Your task to perform on an android device: Search for pizza restaurants on Maps Image 0: 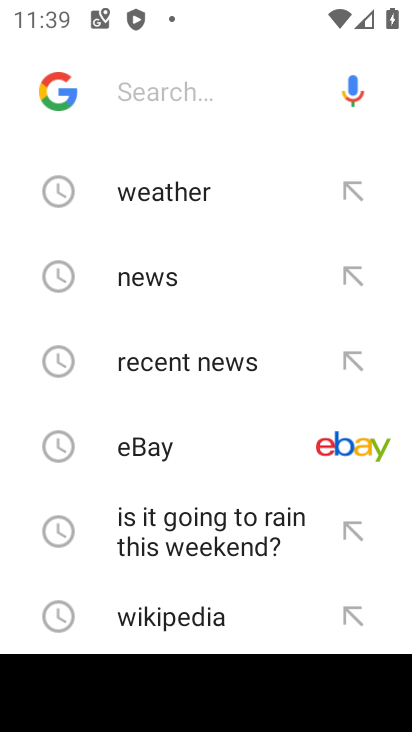
Step 0: press home button
Your task to perform on an android device: Search for pizza restaurants on Maps Image 1: 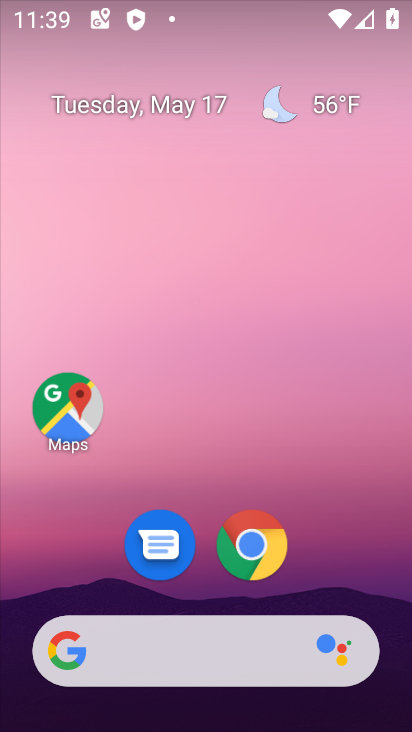
Step 1: drag from (205, 638) to (275, 185)
Your task to perform on an android device: Search for pizza restaurants on Maps Image 2: 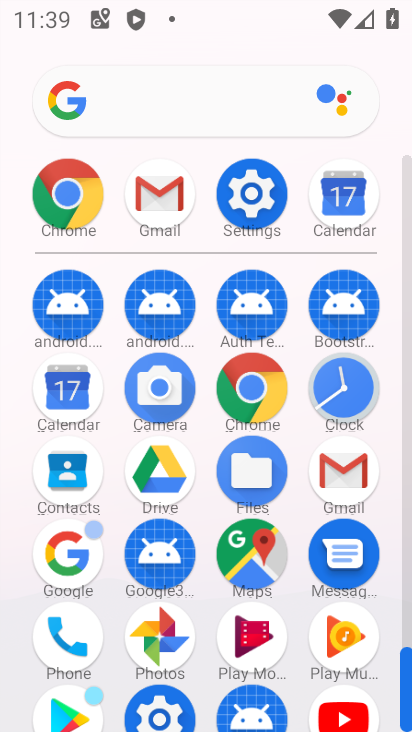
Step 2: drag from (242, 495) to (298, 248)
Your task to perform on an android device: Search for pizza restaurants on Maps Image 3: 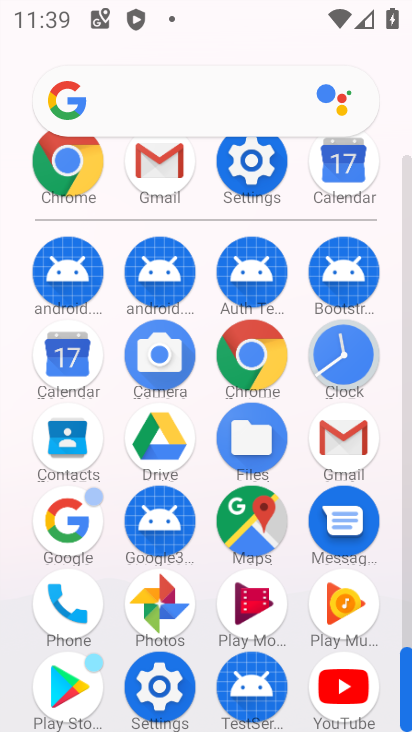
Step 3: click (258, 520)
Your task to perform on an android device: Search for pizza restaurants on Maps Image 4: 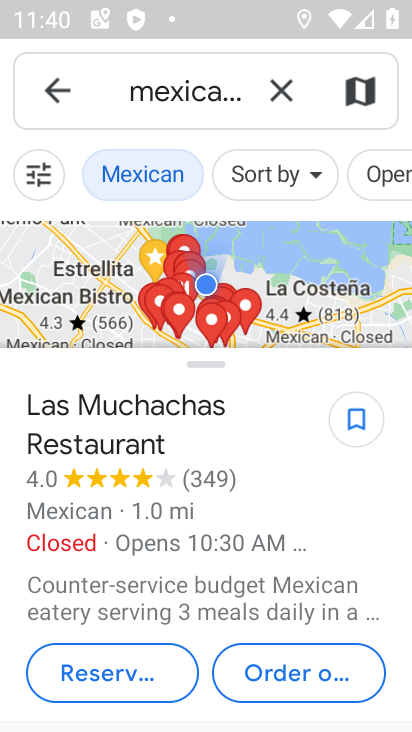
Step 4: click (277, 96)
Your task to perform on an android device: Search for pizza restaurants on Maps Image 5: 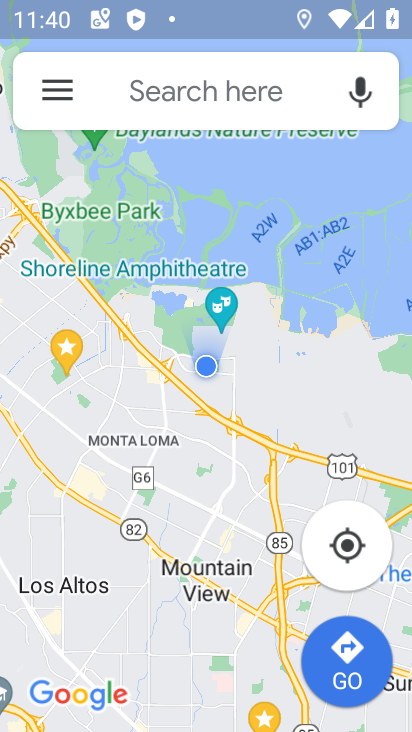
Step 5: click (223, 83)
Your task to perform on an android device: Search for pizza restaurants on Maps Image 6: 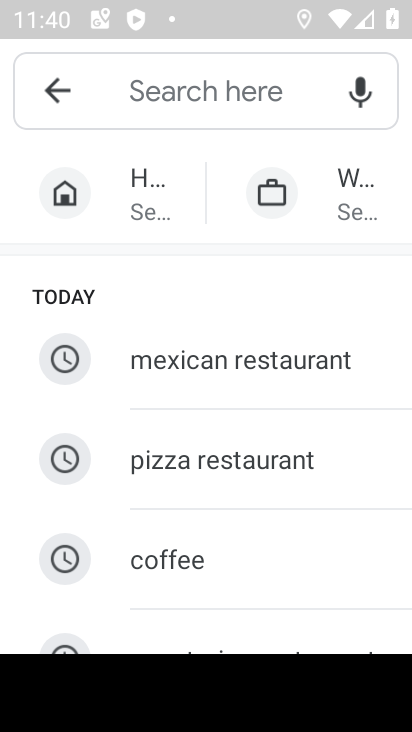
Step 6: type "pizza res"
Your task to perform on an android device: Search for pizza restaurants on Maps Image 7: 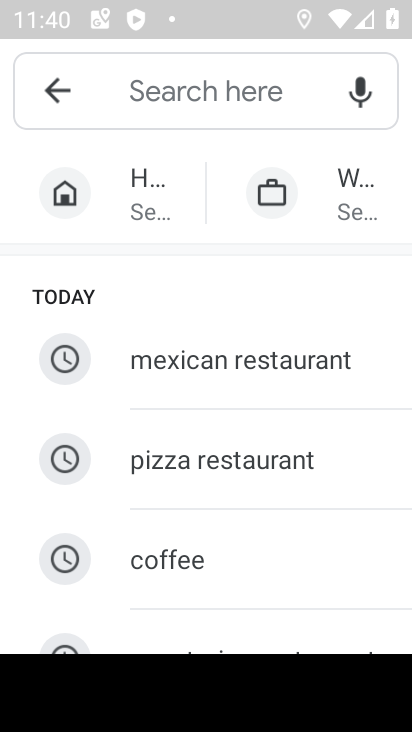
Step 7: click (214, 470)
Your task to perform on an android device: Search for pizza restaurants on Maps Image 8: 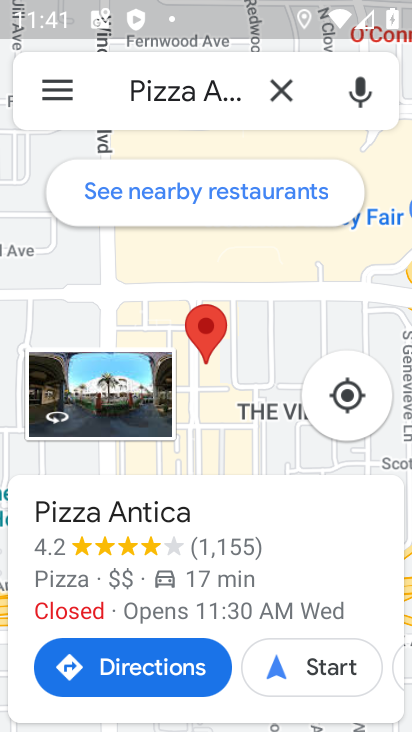
Step 8: task complete